Your task to perform on an android device: Search for asus rog on target, select the first entry, add it to the cart, then select checkout. Image 0: 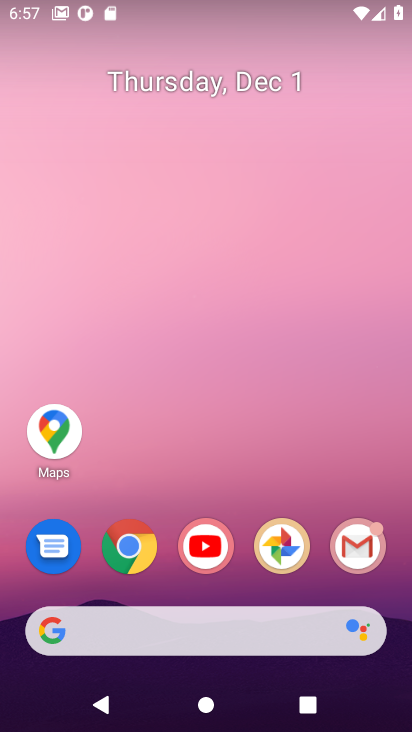
Step 0: click (134, 551)
Your task to perform on an android device: Search for asus rog on target, select the first entry, add it to the cart, then select checkout. Image 1: 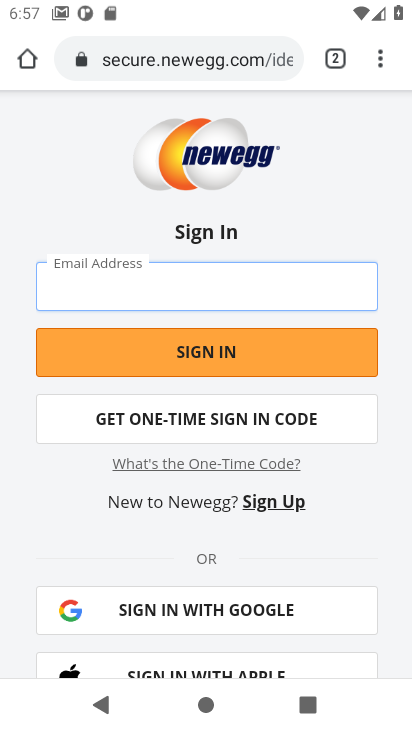
Step 1: click (195, 63)
Your task to perform on an android device: Search for asus rog on target, select the first entry, add it to the cart, then select checkout. Image 2: 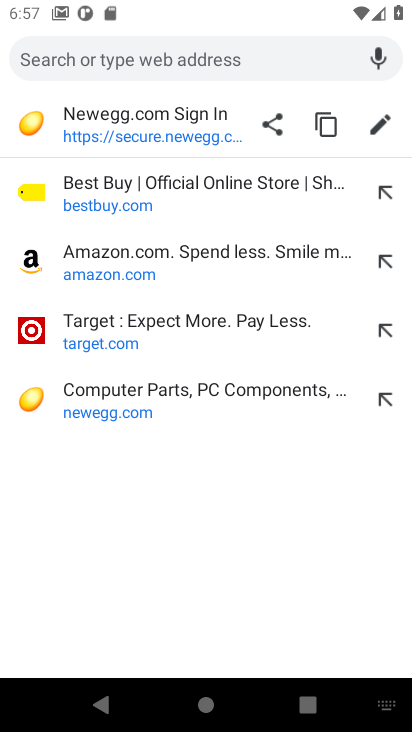
Step 2: click (86, 328)
Your task to perform on an android device: Search for asus rog on target, select the first entry, add it to the cart, then select checkout. Image 3: 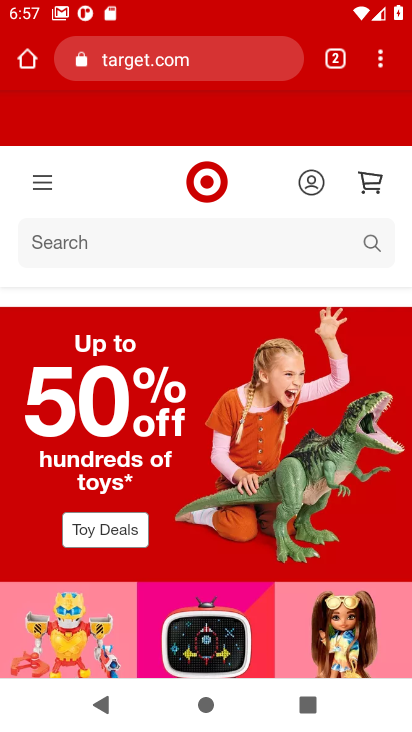
Step 3: click (67, 243)
Your task to perform on an android device: Search for asus rog on target, select the first entry, add it to the cart, then select checkout. Image 4: 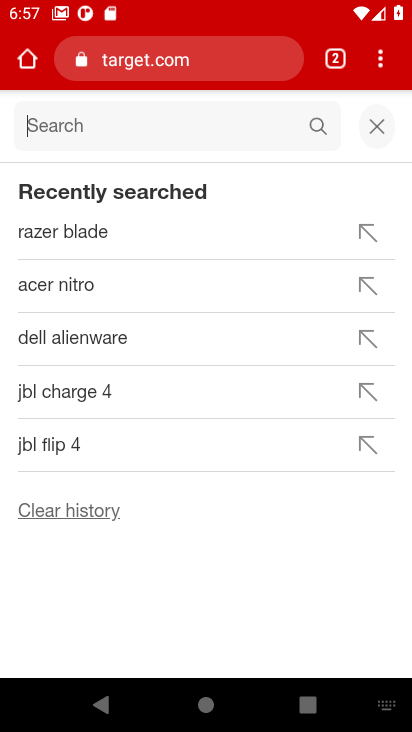
Step 4: type "asus rog "
Your task to perform on an android device: Search for asus rog on target, select the first entry, add it to the cart, then select checkout. Image 5: 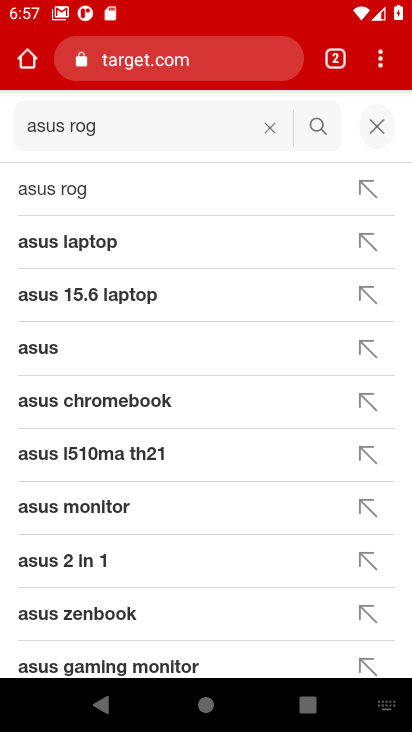
Step 5: click (60, 199)
Your task to perform on an android device: Search for asus rog on target, select the first entry, add it to the cart, then select checkout. Image 6: 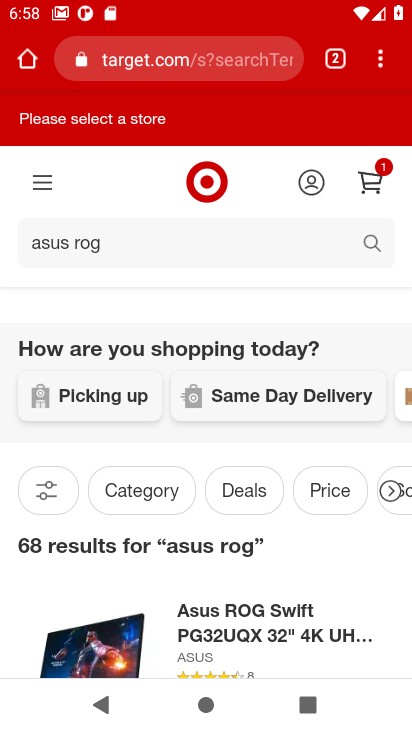
Step 6: drag from (328, 561) to (280, 275)
Your task to perform on an android device: Search for asus rog on target, select the first entry, add it to the cart, then select checkout. Image 7: 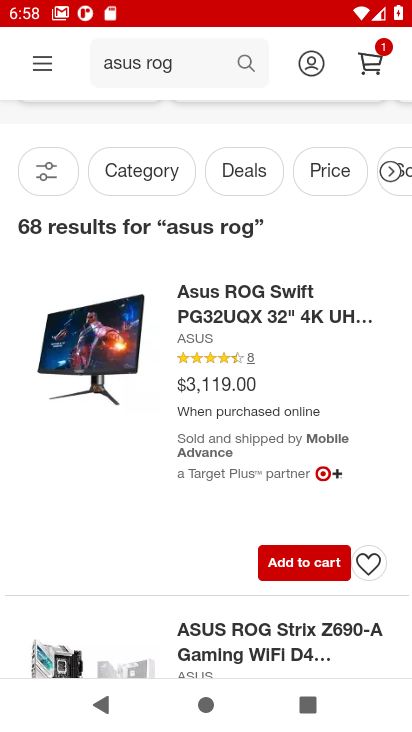
Step 7: click (290, 557)
Your task to perform on an android device: Search for asus rog on target, select the first entry, add it to the cart, then select checkout. Image 8: 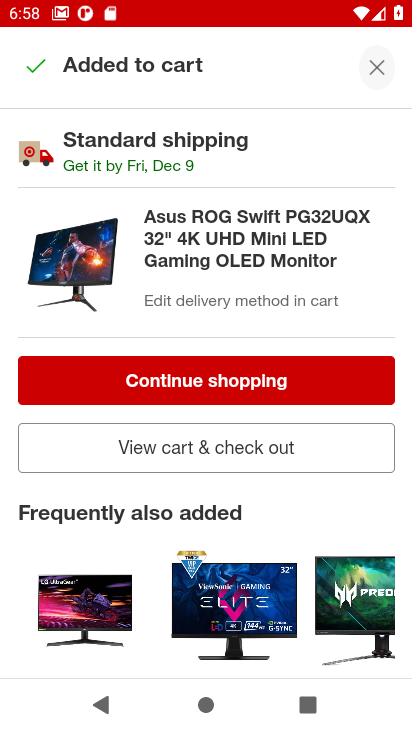
Step 8: click (164, 451)
Your task to perform on an android device: Search for asus rog on target, select the first entry, add it to the cart, then select checkout. Image 9: 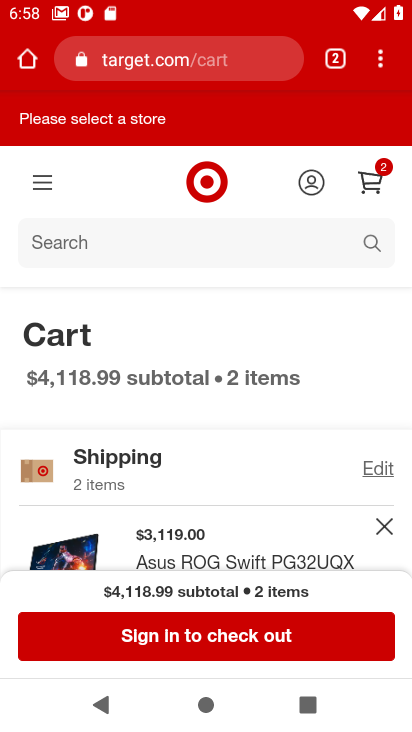
Step 9: click (242, 631)
Your task to perform on an android device: Search for asus rog on target, select the first entry, add it to the cart, then select checkout. Image 10: 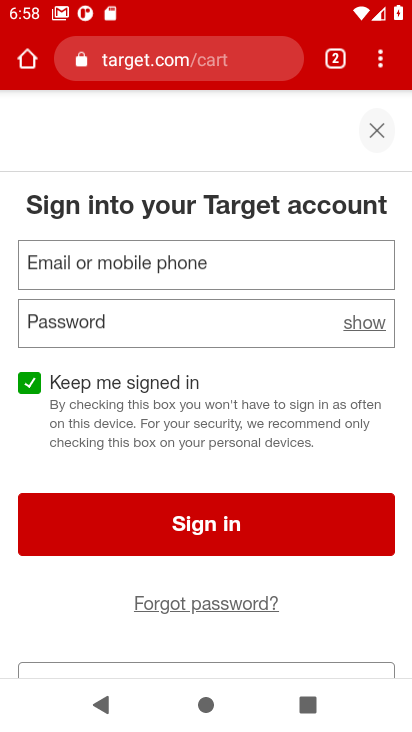
Step 10: task complete